Your task to perform on an android device: Go to Reddit.com Image 0: 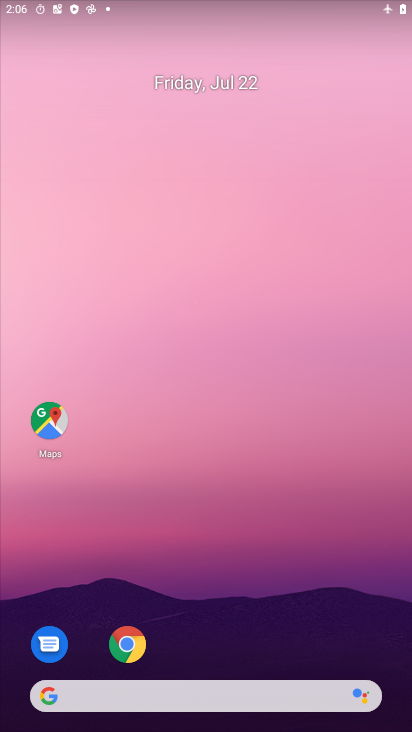
Step 0: drag from (163, 678) to (245, 201)
Your task to perform on an android device: Go to Reddit.com Image 1: 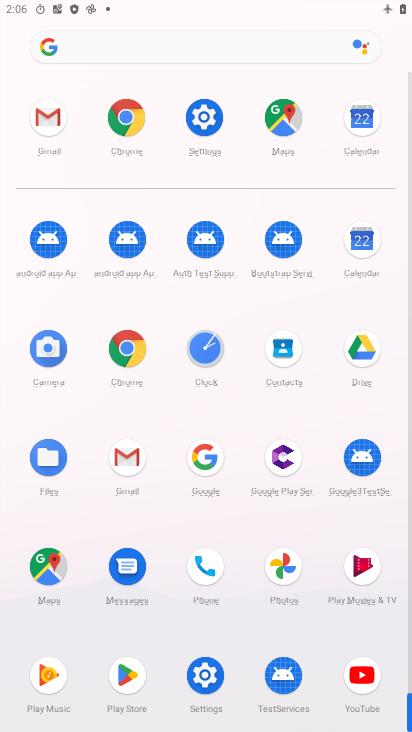
Step 1: click (125, 123)
Your task to perform on an android device: Go to Reddit.com Image 2: 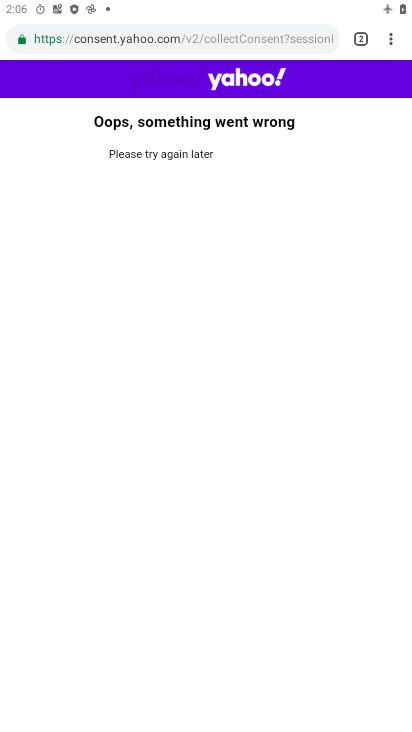
Step 2: click (155, 48)
Your task to perform on an android device: Go to Reddit.com Image 3: 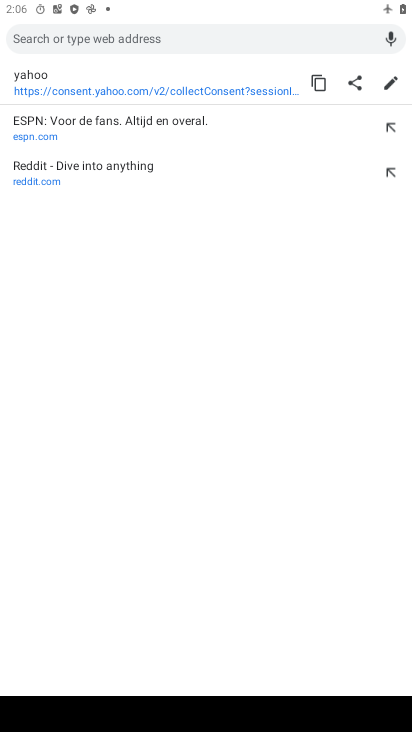
Step 3: click (153, 192)
Your task to perform on an android device: Go to Reddit.com Image 4: 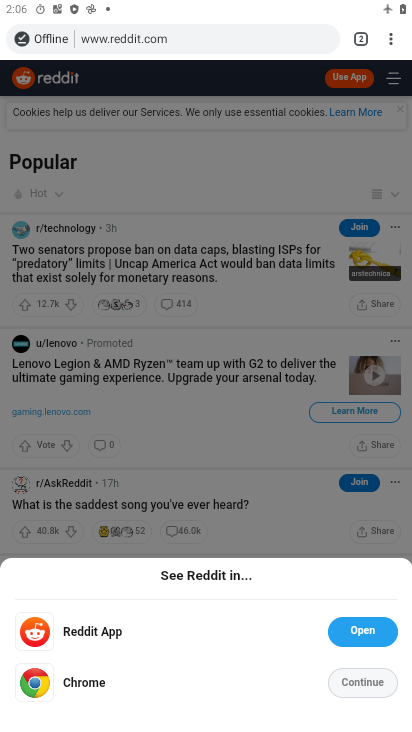
Step 4: task complete